Your task to perform on an android device: search for starred emails in the gmail app Image 0: 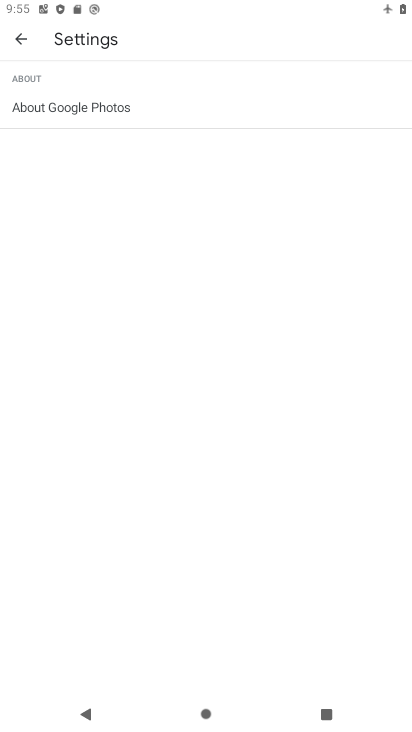
Step 0: press home button
Your task to perform on an android device: search for starred emails in the gmail app Image 1: 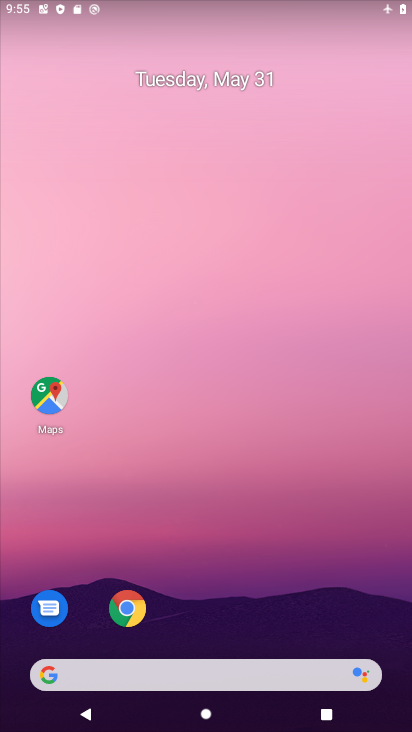
Step 1: drag from (204, 652) to (199, 30)
Your task to perform on an android device: search for starred emails in the gmail app Image 2: 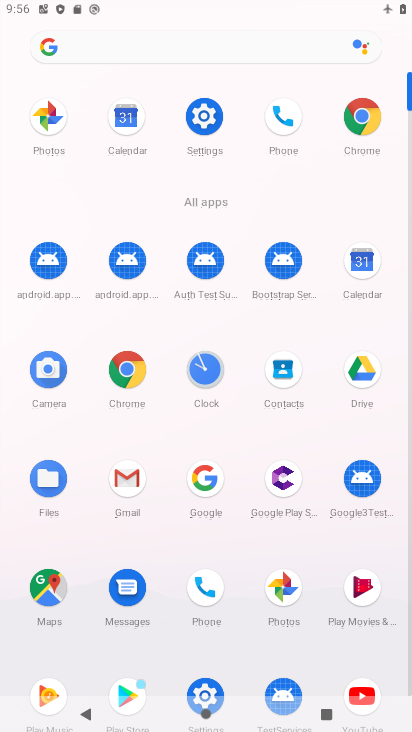
Step 2: click (120, 481)
Your task to perform on an android device: search for starred emails in the gmail app Image 3: 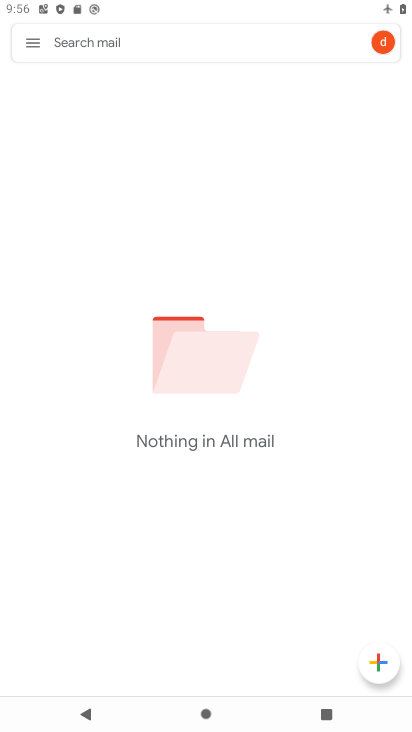
Step 3: click (24, 31)
Your task to perform on an android device: search for starred emails in the gmail app Image 4: 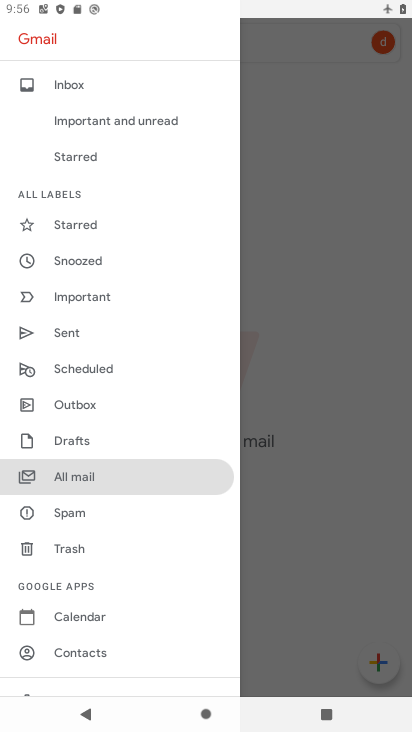
Step 4: click (84, 233)
Your task to perform on an android device: search for starred emails in the gmail app Image 5: 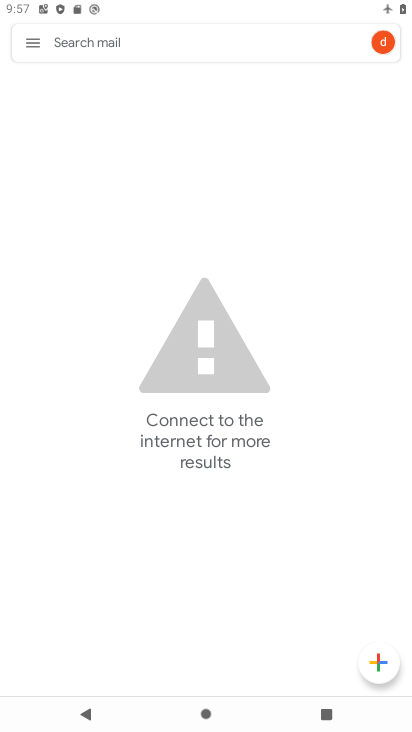
Step 5: task complete